Your task to perform on an android device: Open Google Image 0: 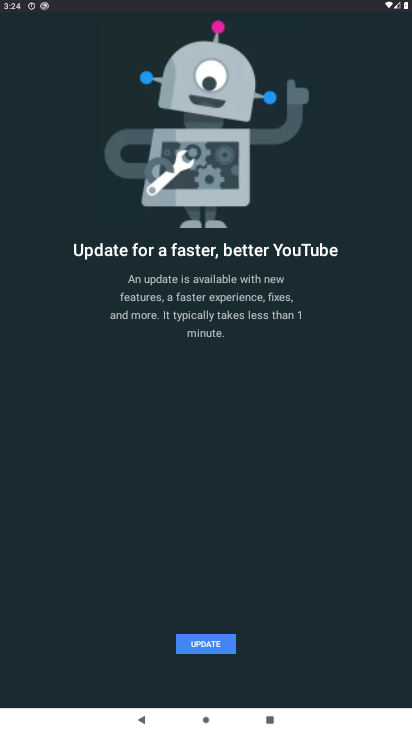
Step 0: press home button
Your task to perform on an android device: Open Google Image 1: 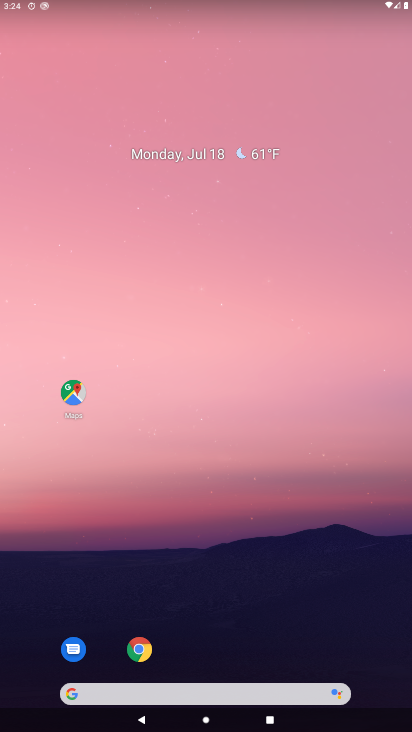
Step 1: click (102, 696)
Your task to perform on an android device: Open Google Image 2: 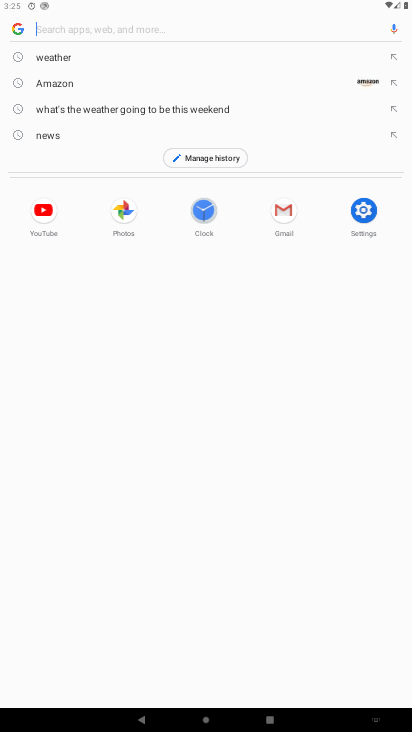
Step 2: task complete